Your task to perform on an android device: allow cookies in the chrome app Image 0: 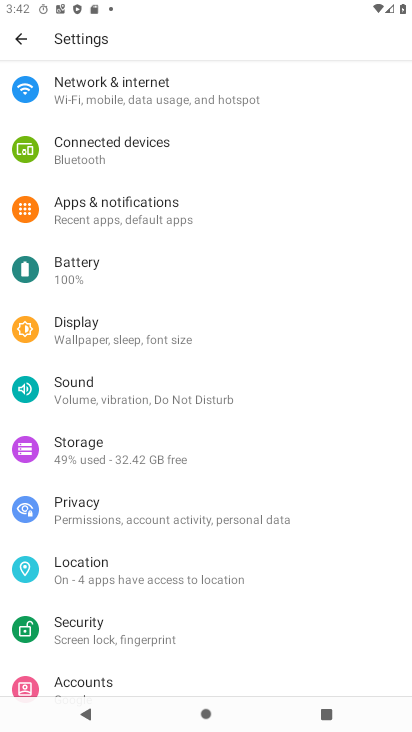
Step 0: press home button
Your task to perform on an android device: allow cookies in the chrome app Image 1: 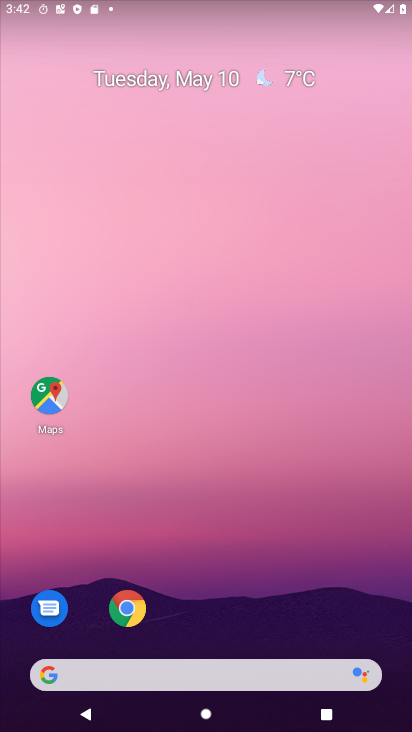
Step 1: click (125, 608)
Your task to perform on an android device: allow cookies in the chrome app Image 2: 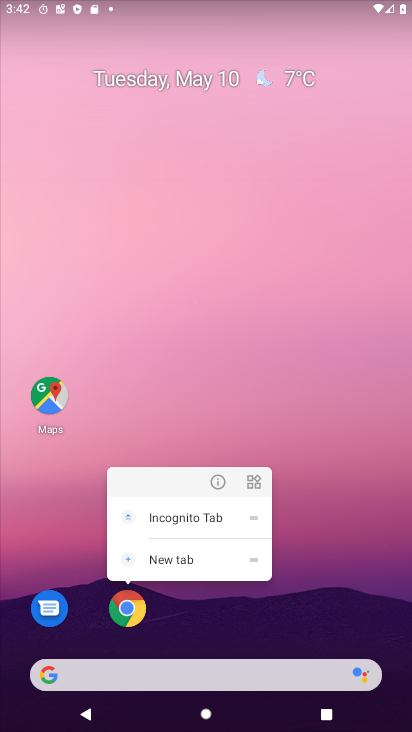
Step 2: click (129, 613)
Your task to perform on an android device: allow cookies in the chrome app Image 3: 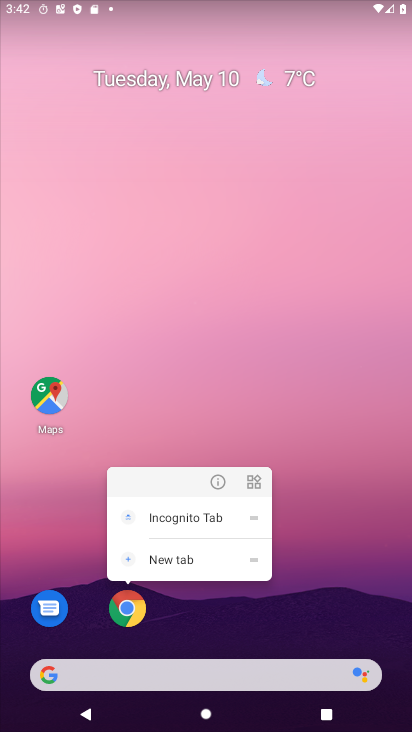
Step 3: click (129, 611)
Your task to perform on an android device: allow cookies in the chrome app Image 4: 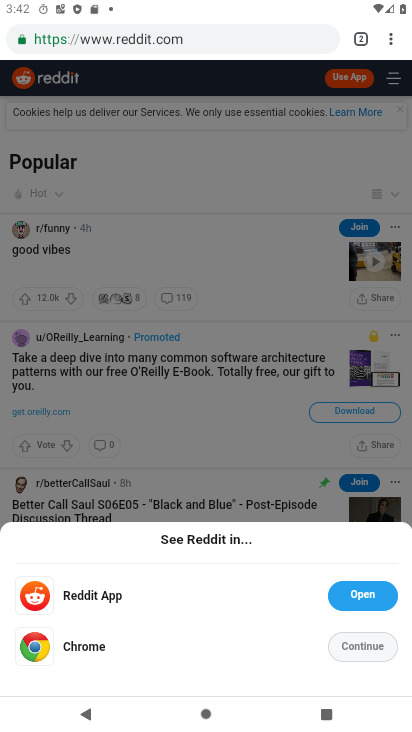
Step 4: drag from (390, 36) to (267, 477)
Your task to perform on an android device: allow cookies in the chrome app Image 5: 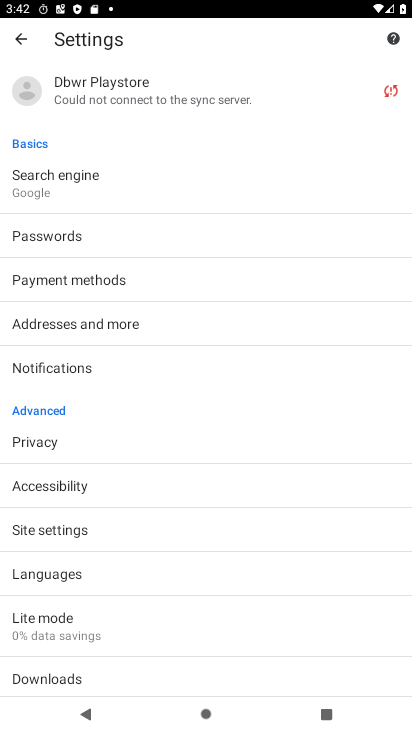
Step 5: click (57, 532)
Your task to perform on an android device: allow cookies in the chrome app Image 6: 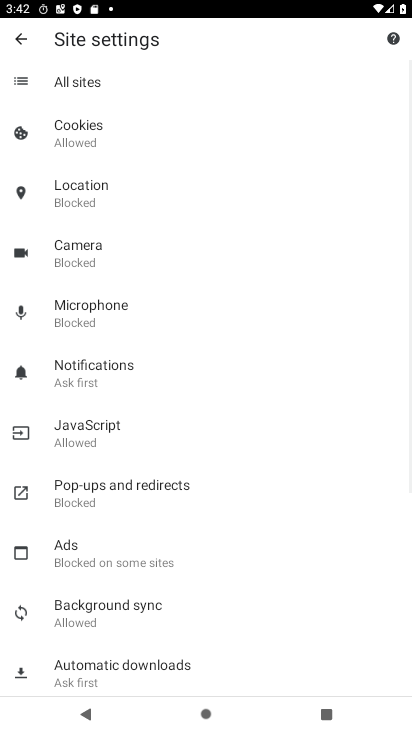
Step 6: click (76, 138)
Your task to perform on an android device: allow cookies in the chrome app Image 7: 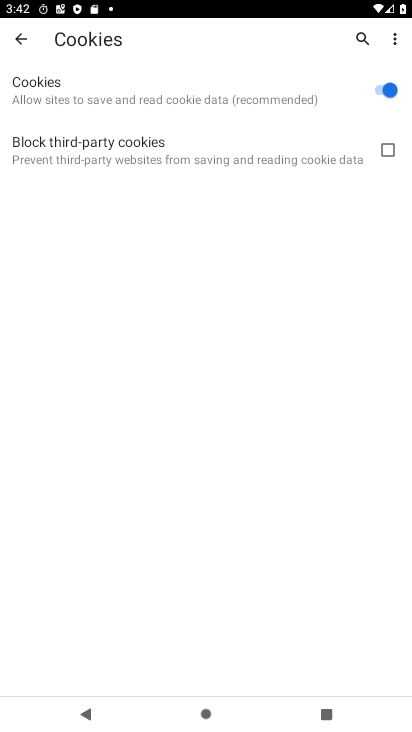
Step 7: task complete